Your task to perform on an android device: turn on priority inbox in the gmail app Image 0: 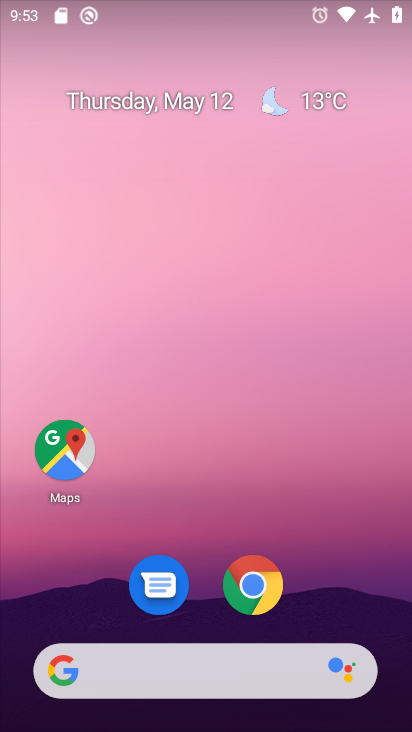
Step 0: drag from (238, 488) to (216, 19)
Your task to perform on an android device: turn on priority inbox in the gmail app Image 1: 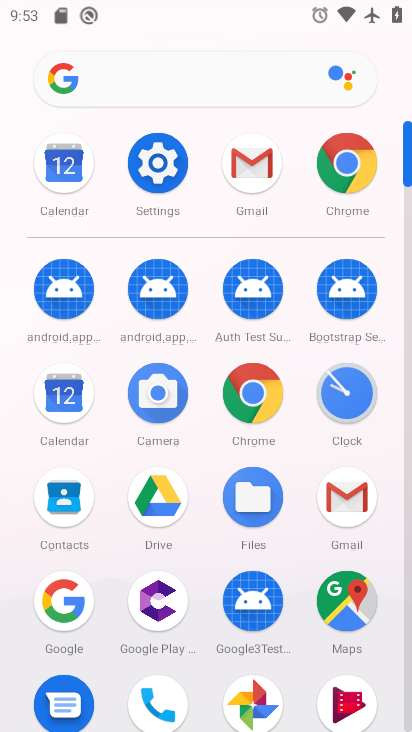
Step 1: click (248, 171)
Your task to perform on an android device: turn on priority inbox in the gmail app Image 2: 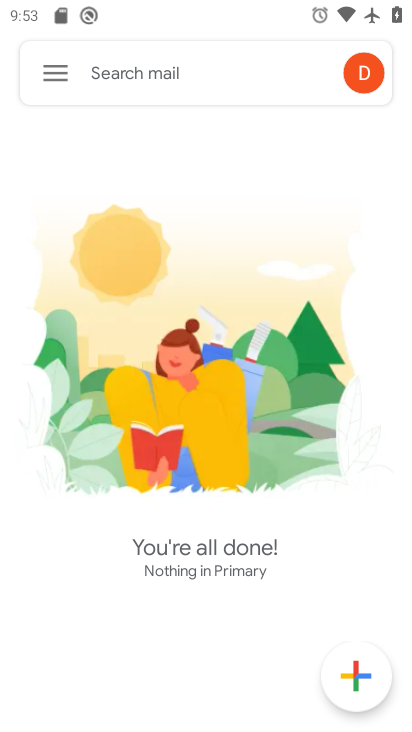
Step 2: click (58, 72)
Your task to perform on an android device: turn on priority inbox in the gmail app Image 3: 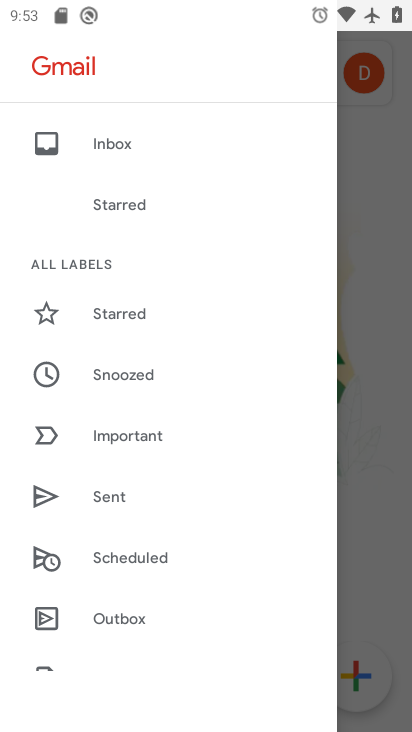
Step 3: drag from (150, 544) to (166, 23)
Your task to perform on an android device: turn on priority inbox in the gmail app Image 4: 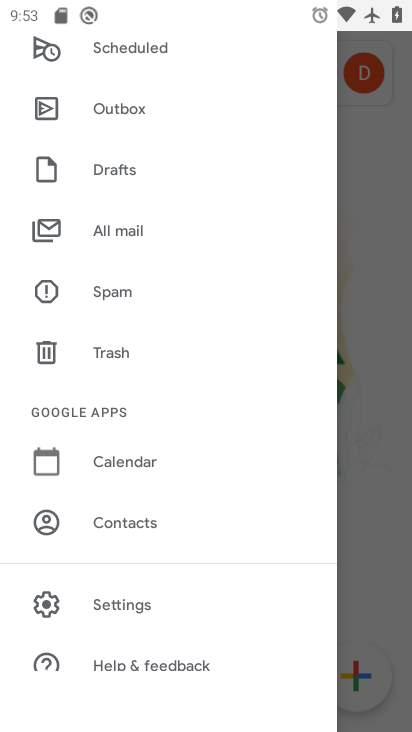
Step 4: click (144, 605)
Your task to perform on an android device: turn on priority inbox in the gmail app Image 5: 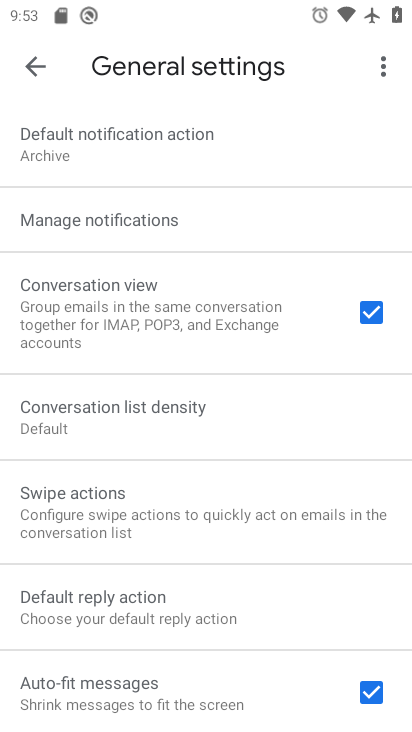
Step 5: click (40, 67)
Your task to perform on an android device: turn on priority inbox in the gmail app Image 6: 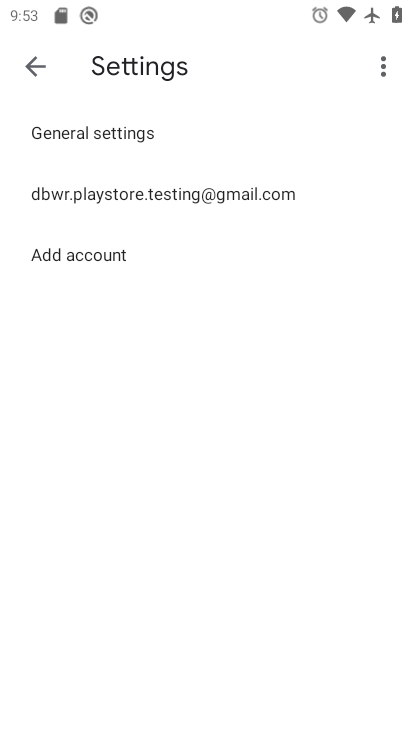
Step 6: click (71, 180)
Your task to perform on an android device: turn on priority inbox in the gmail app Image 7: 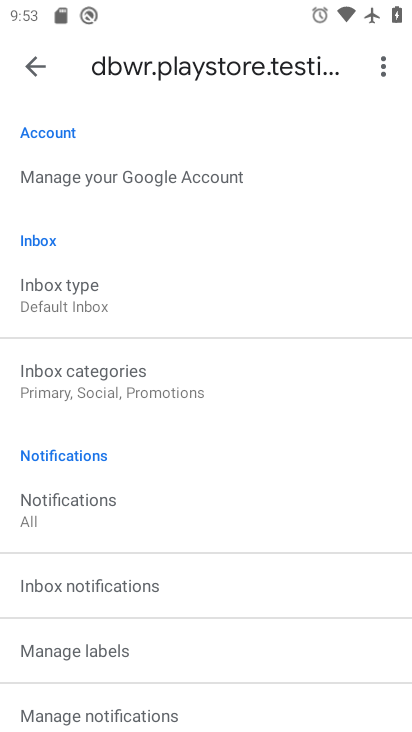
Step 7: click (81, 292)
Your task to perform on an android device: turn on priority inbox in the gmail app Image 8: 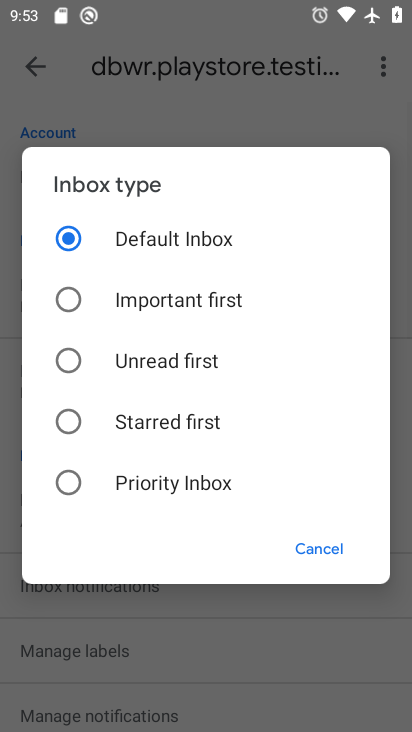
Step 8: click (70, 477)
Your task to perform on an android device: turn on priority inbox in the gmail app Image 9: 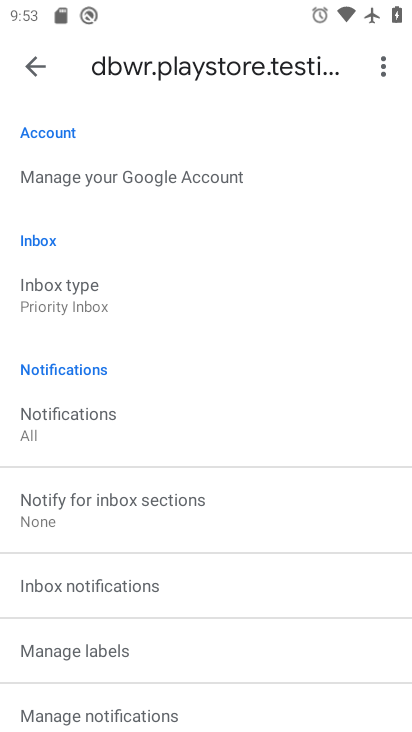
Step 9: task complete